Your task to perform on an android device: Open Chrome and go to settings Image 0: 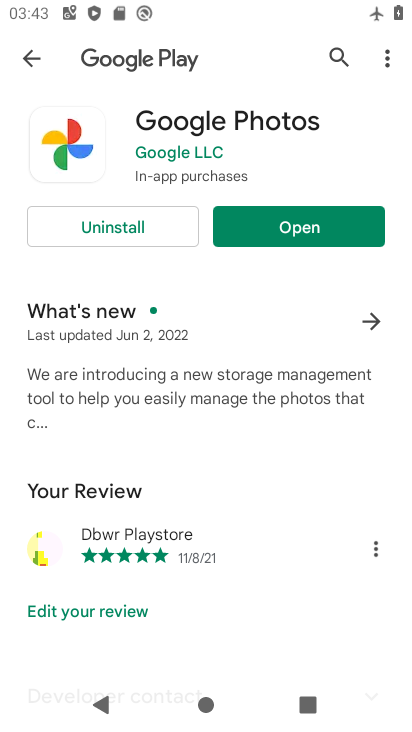
Step 0: press home button
Your task to perform on an android device: Open Chrome and go to settings Image 1: 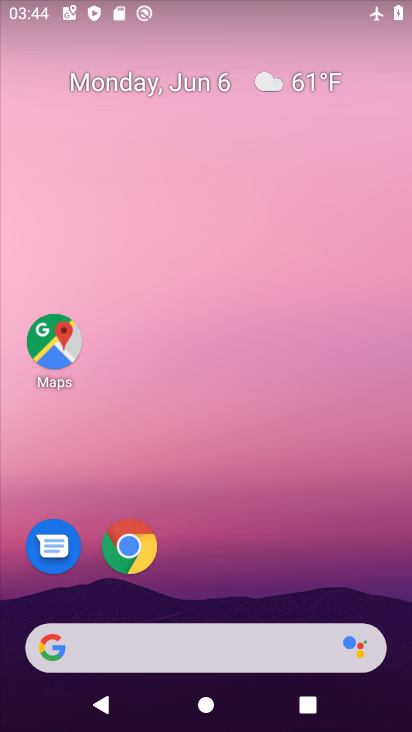
Step 1: click (125, 549)
Your task to perform on an android device: Open Chrome and go to settings Image 2: 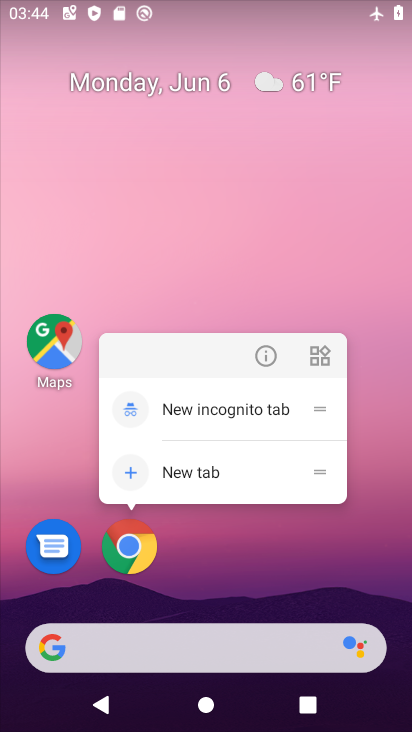
Step 2: click (125, 549)
Your task to perform on an android device: Open Chrome and go to settings Image 3: 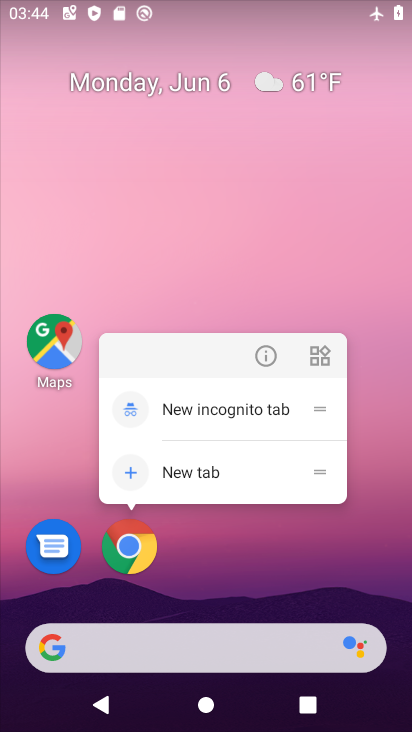
Step 3: click (138, 532)
Your task to perform on an android device: Open Chrome and go to settings Image 4: 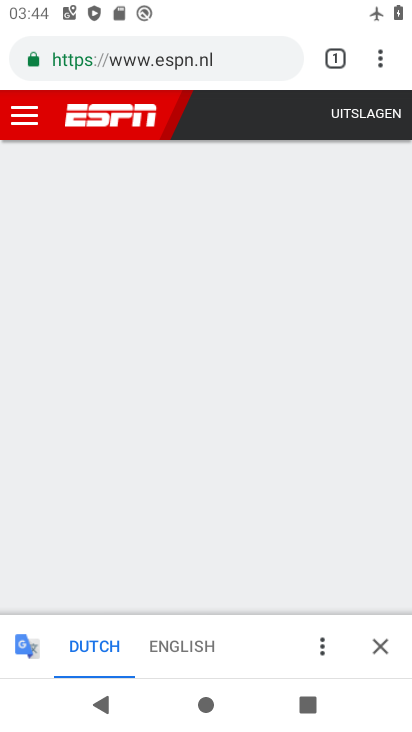
Step 4: task complete